Your task to perform on an android device: Open accessibility settings Image 0: 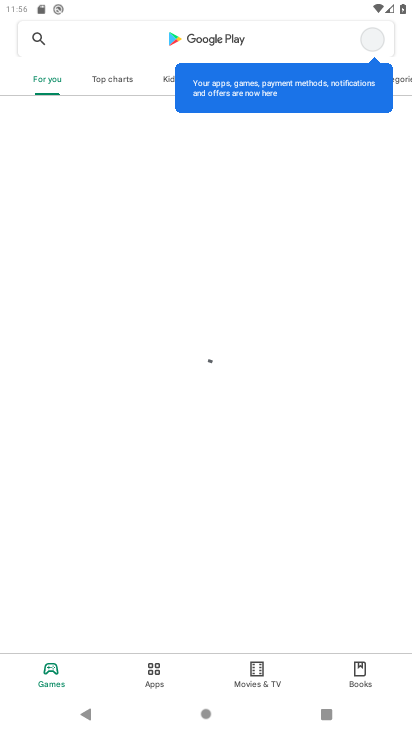
Step 0: press home button
Your task to perform on an android device: Open accessibility settings Image 1: 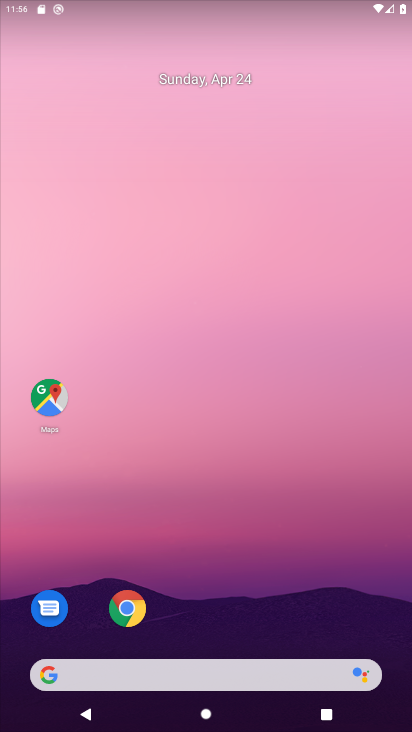
Step 1: drag from (234, 724) to (224, 100)
Your task to perform on an android device: Open accessibility settings Image 2: 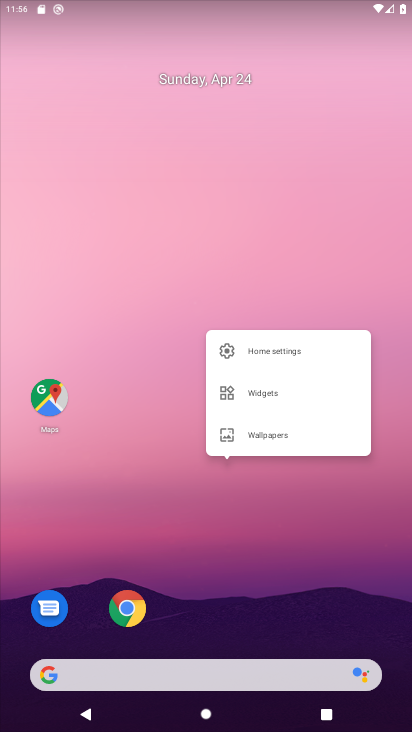
Step 2: click (212, 253)
Your task to perform on an android device: Open accessibility settings Image 3: 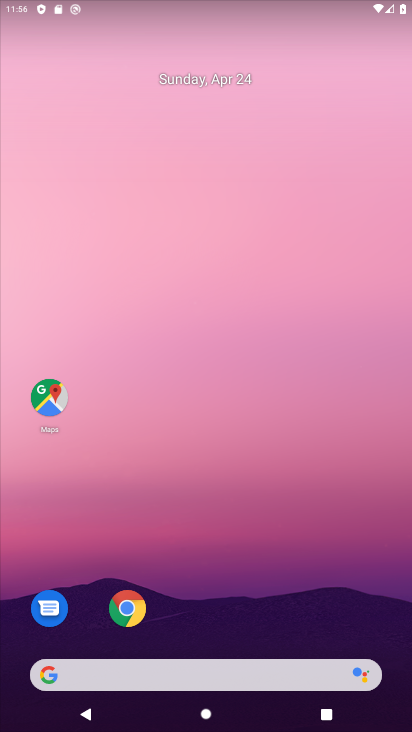
Step 3: drag from (226, 655) to (227, 200)
Your task to perform on an android device: Open accessibility settings Image 4: 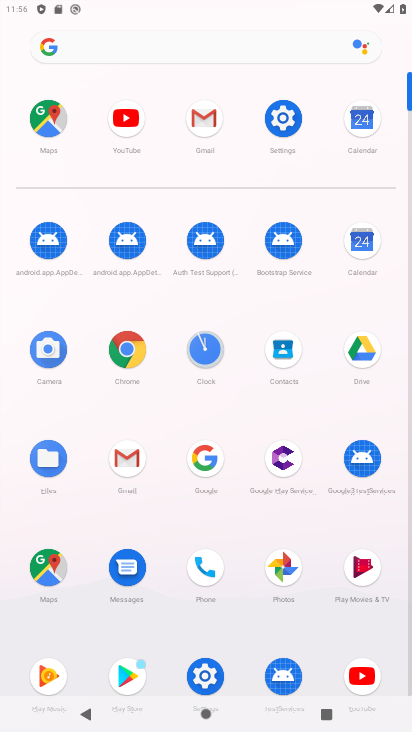
Step 4: click (282, 110)
Your task to perform on an android device: Open accessibility settings Image 5: 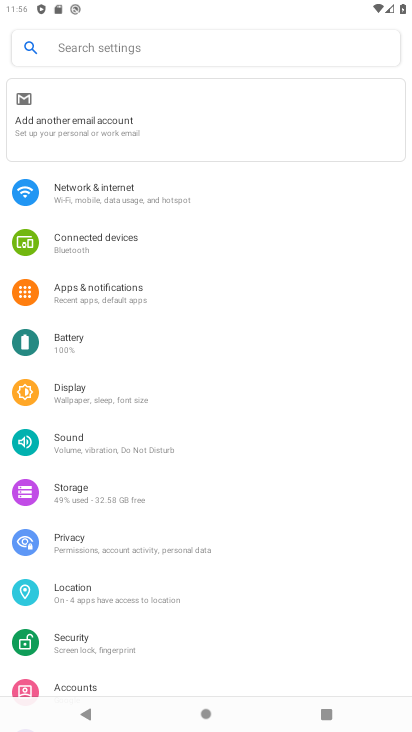
Step 5: drag from (178, 668) to (171, 299)
Your task to perform on an android device: Open accessibility settings Image 6: 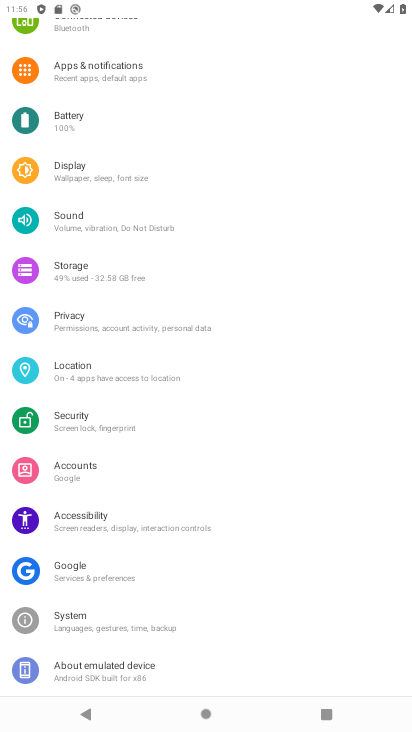
Step 6: click (96, 514)
Your task to perform on an android device: Open accessibility settings Image 7: 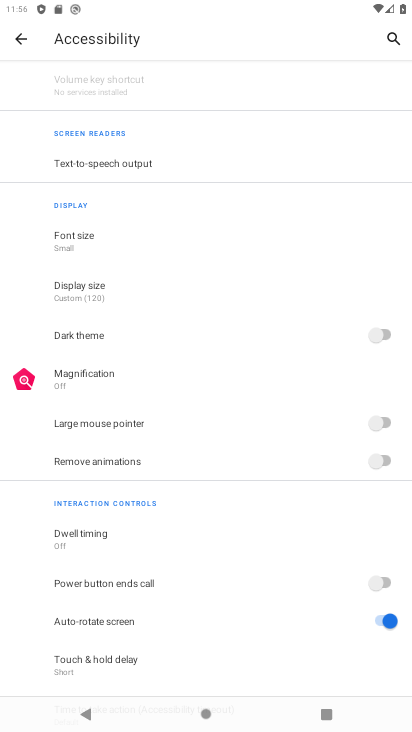
Step 7: task complete